Your task to perform on an android device: find snoozed emails in the gmail app Image 0: 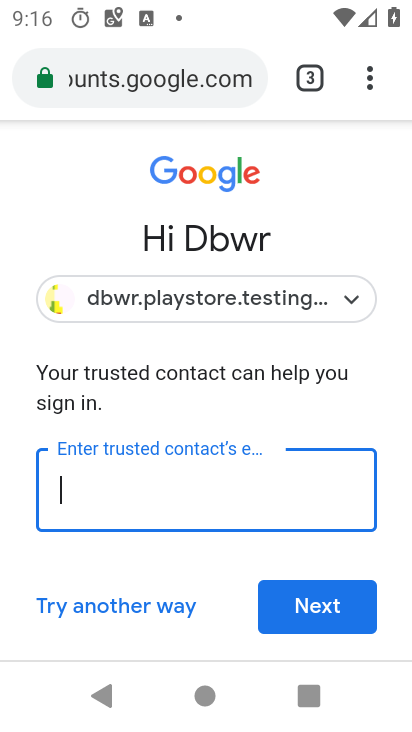
Step 0: press home button
Your task to perform on an android device: find snoozed emails in the gmail app Image 1: 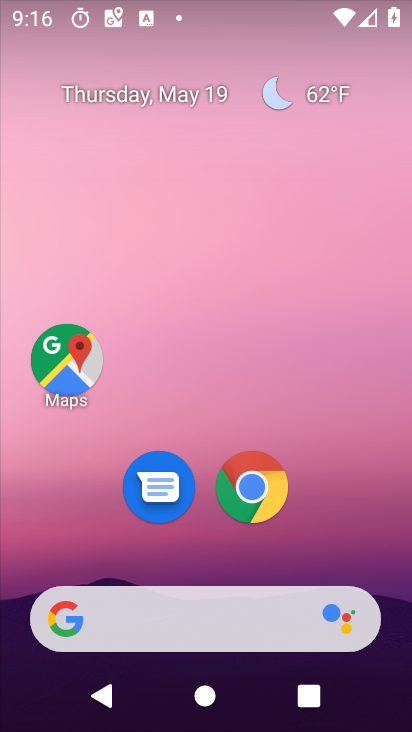
Step 1: drag from (357, 533) to (217, 20)
Your task to perform on an android device: find snoozed emails in the gmail app Image 2: 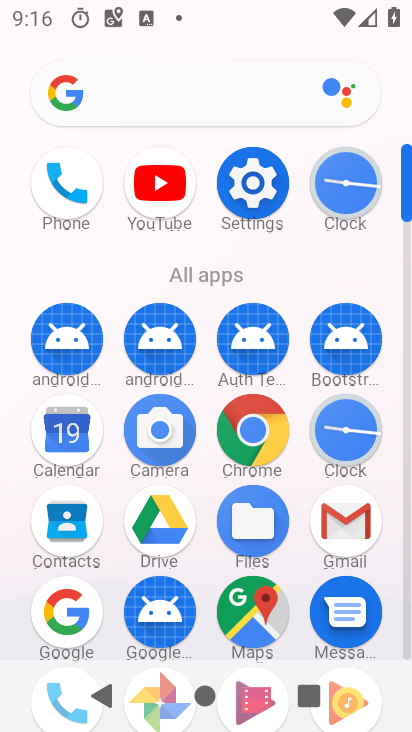
Step 2: click (355, 541)
Your task to perform on an android device: find snoozed emails in the gmail app Image 3: 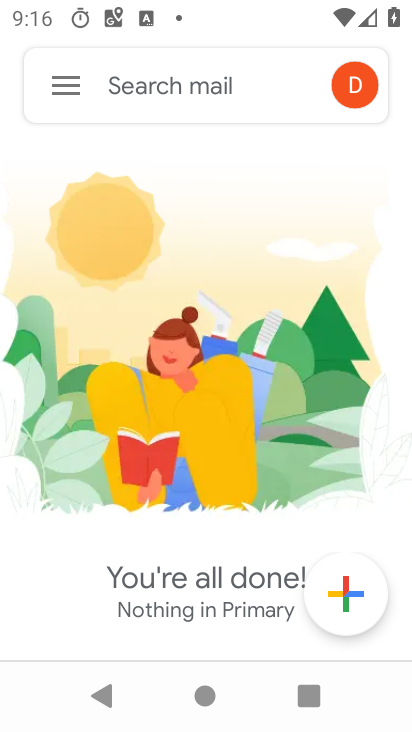
Step 3: click (55, 97)
Your task to perform on an android device: find snoozed emails in the gmail app Image 4: 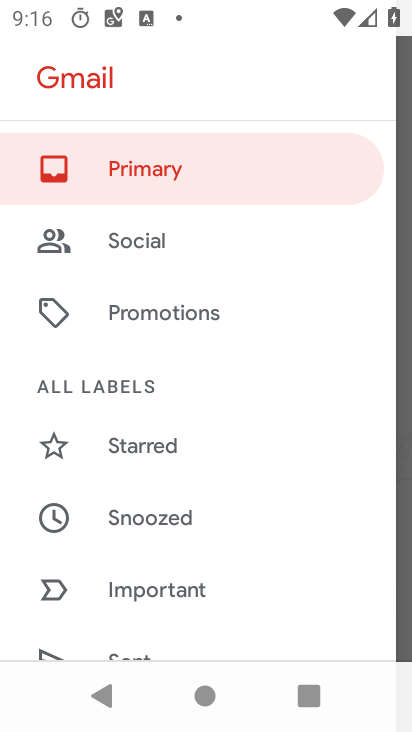
Step 4: click (146, 530)
Your task to perform on an android device: find snoozed emails in the gmail app Image 5: 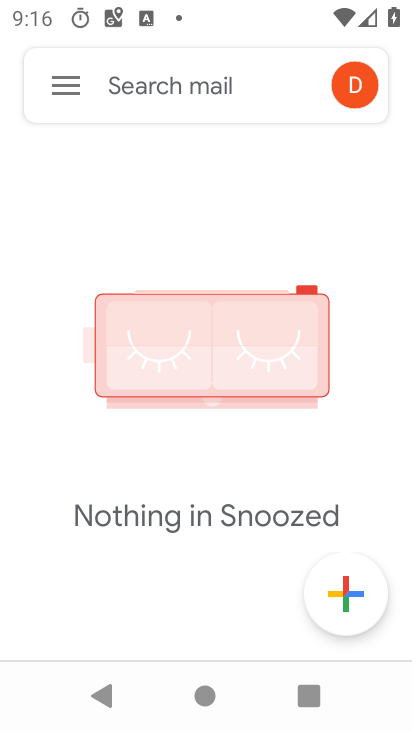
Step 5: task complete